Your task to perform on an android device: Go to calendar. Show me events next week Image 0: 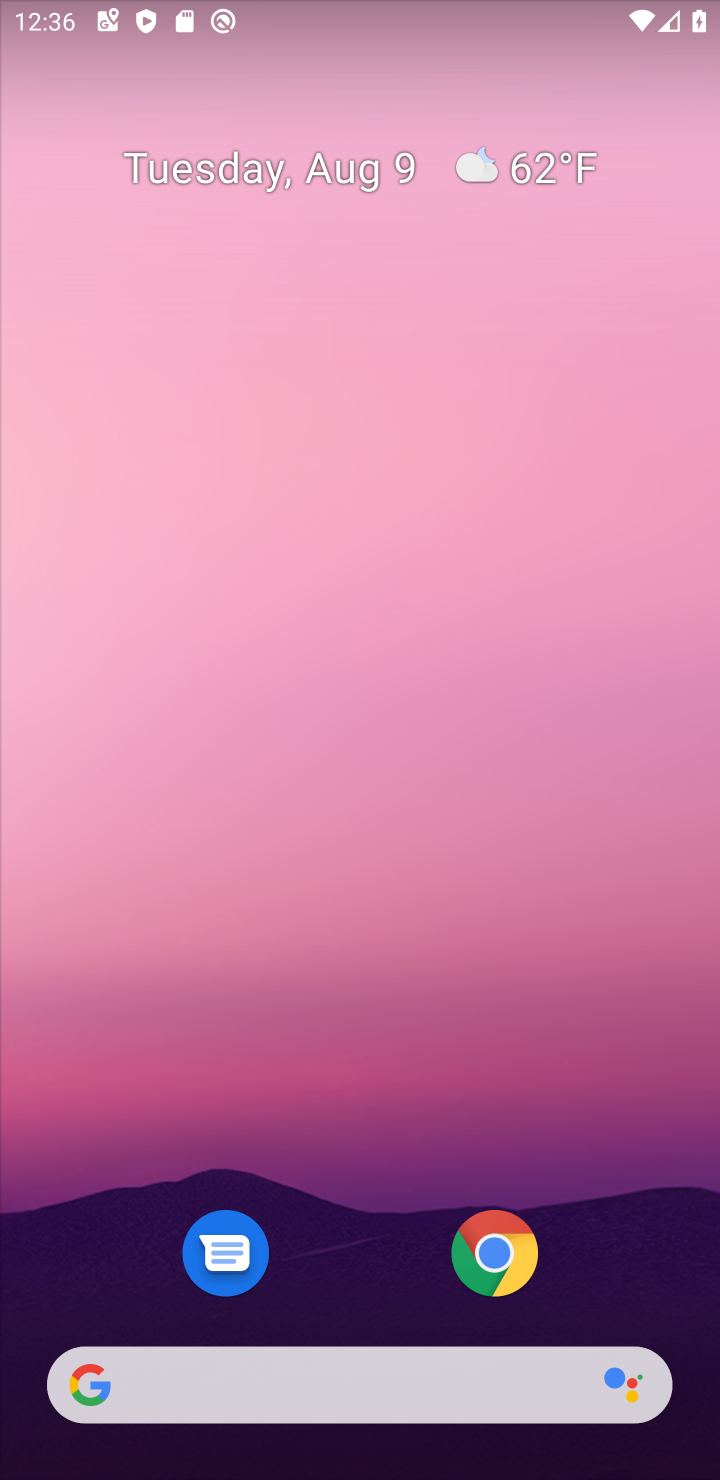
Step 0: drag from (661, 1191) to (473, 22)
Your task to perform on an android device: Go to calendar. Show me events next week Image 1: 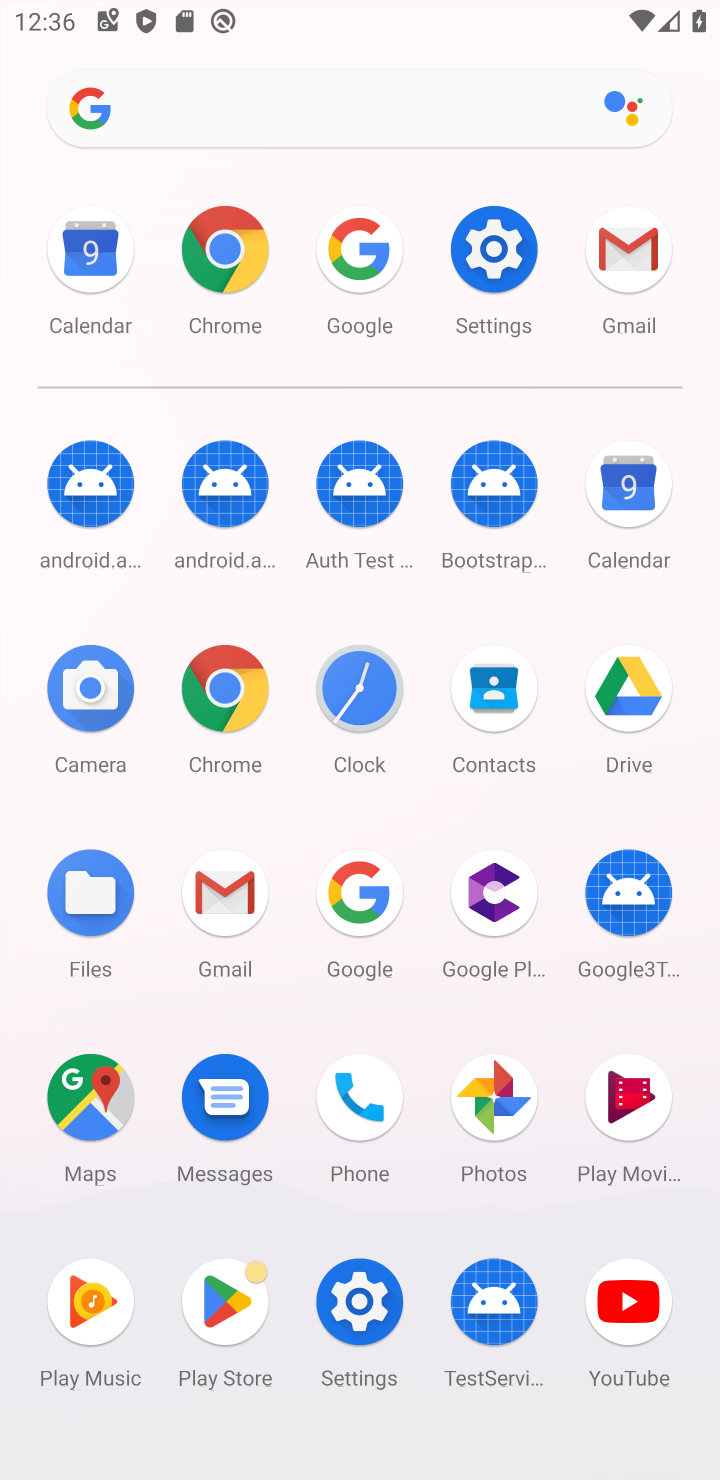
Step 1: click (649, 490)
Your task to perform on an android device: Go to calendar. Show me events next week Image 2: 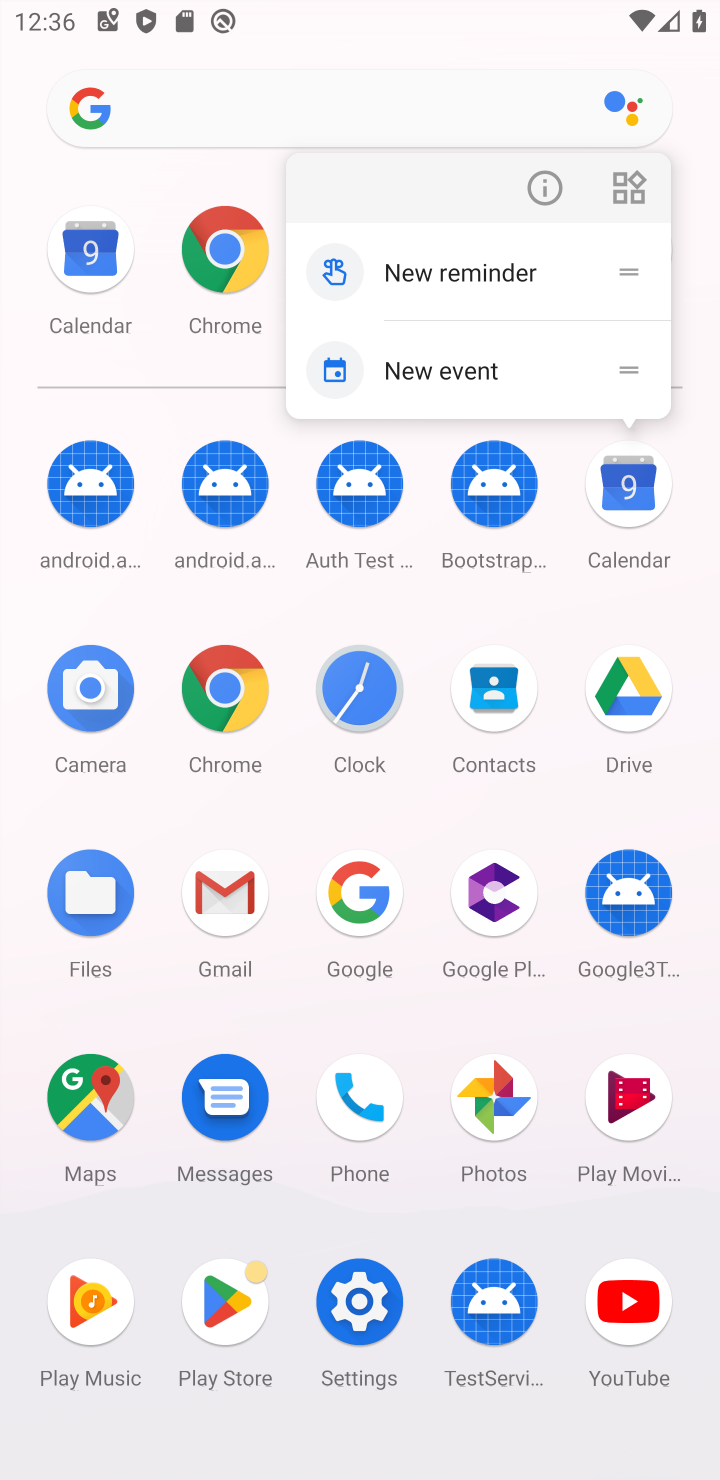
Step 2: click (649, 490)
Your task to perform on an android device: Go to calendar. Show me events next week Image 3: 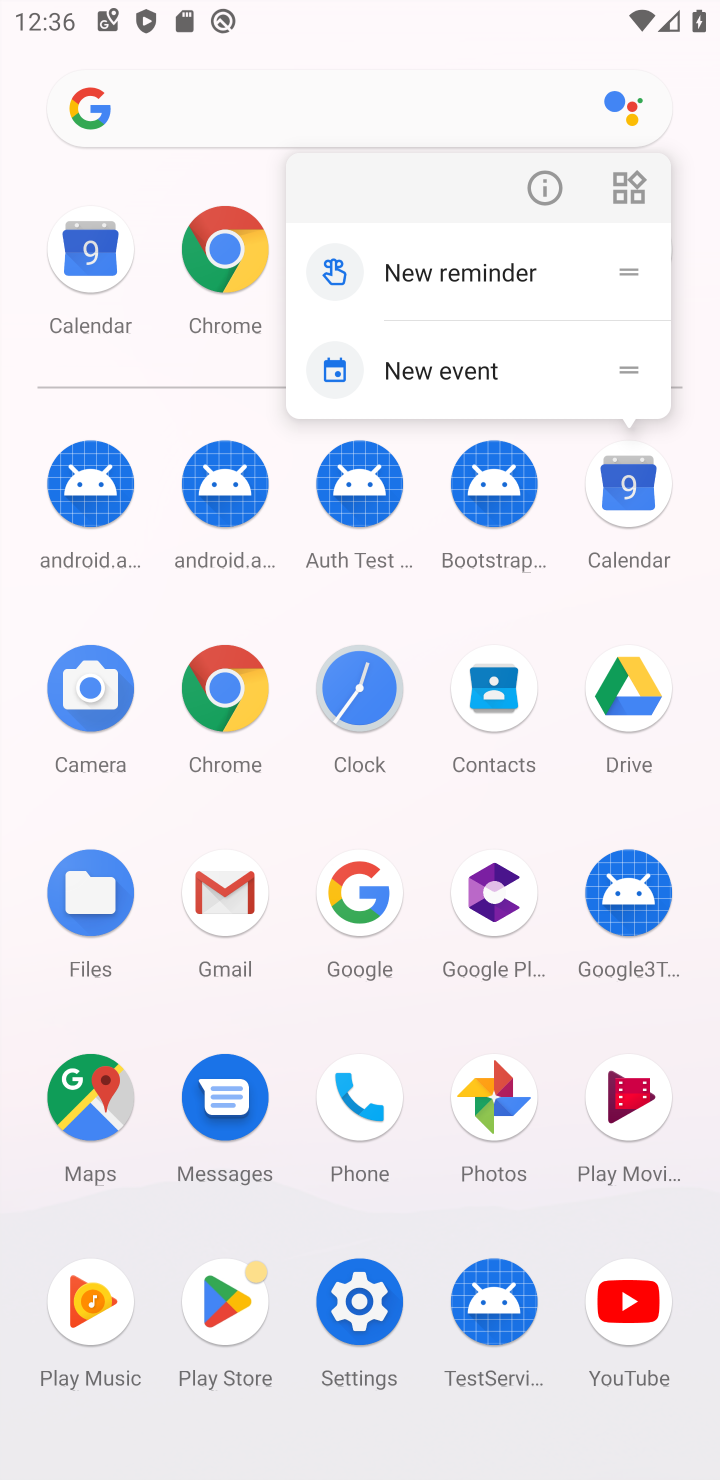
Step 3: click (635, 493)
Your task to perform on an android device: Go to calendar. Show me events next week Image 4: 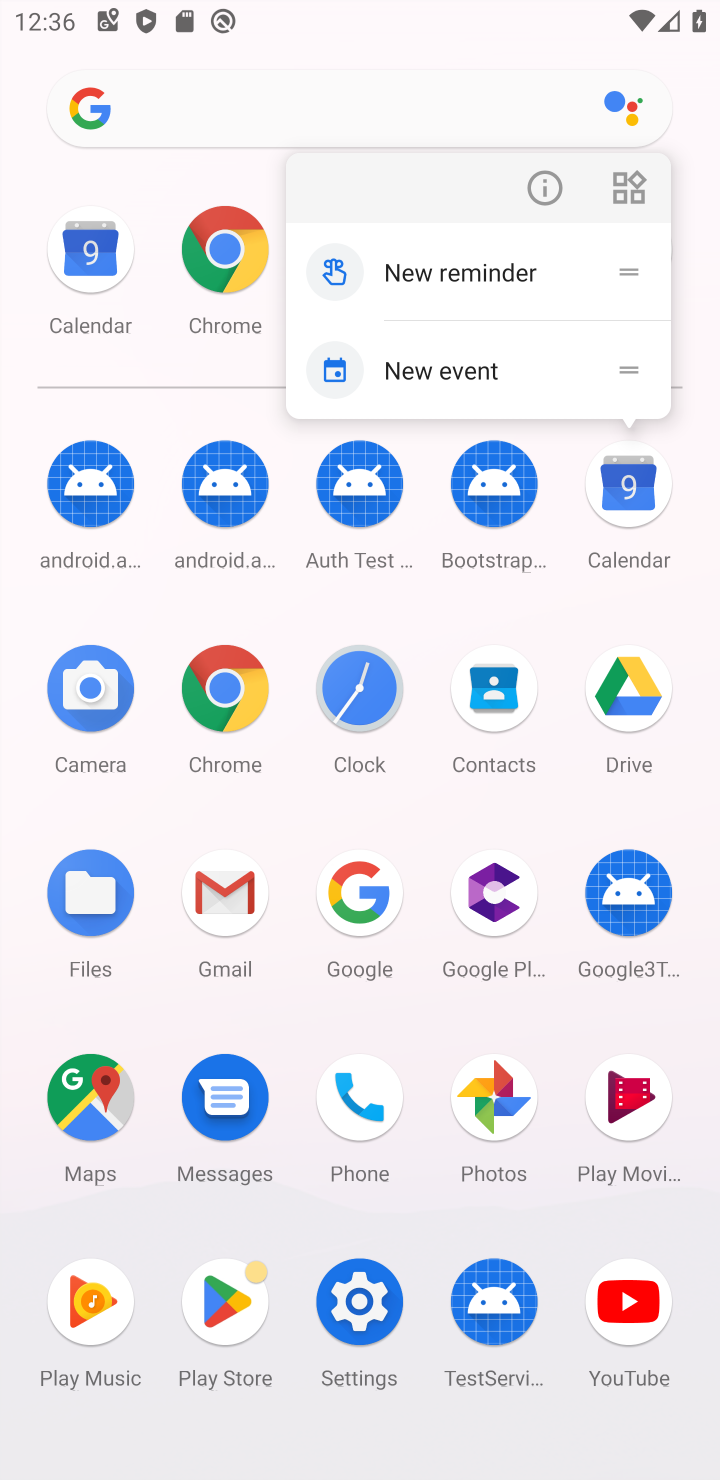
Step 4: click (635, 493)
Your task to perform on an android device: Go to calendar. Show me events next week Image 5: 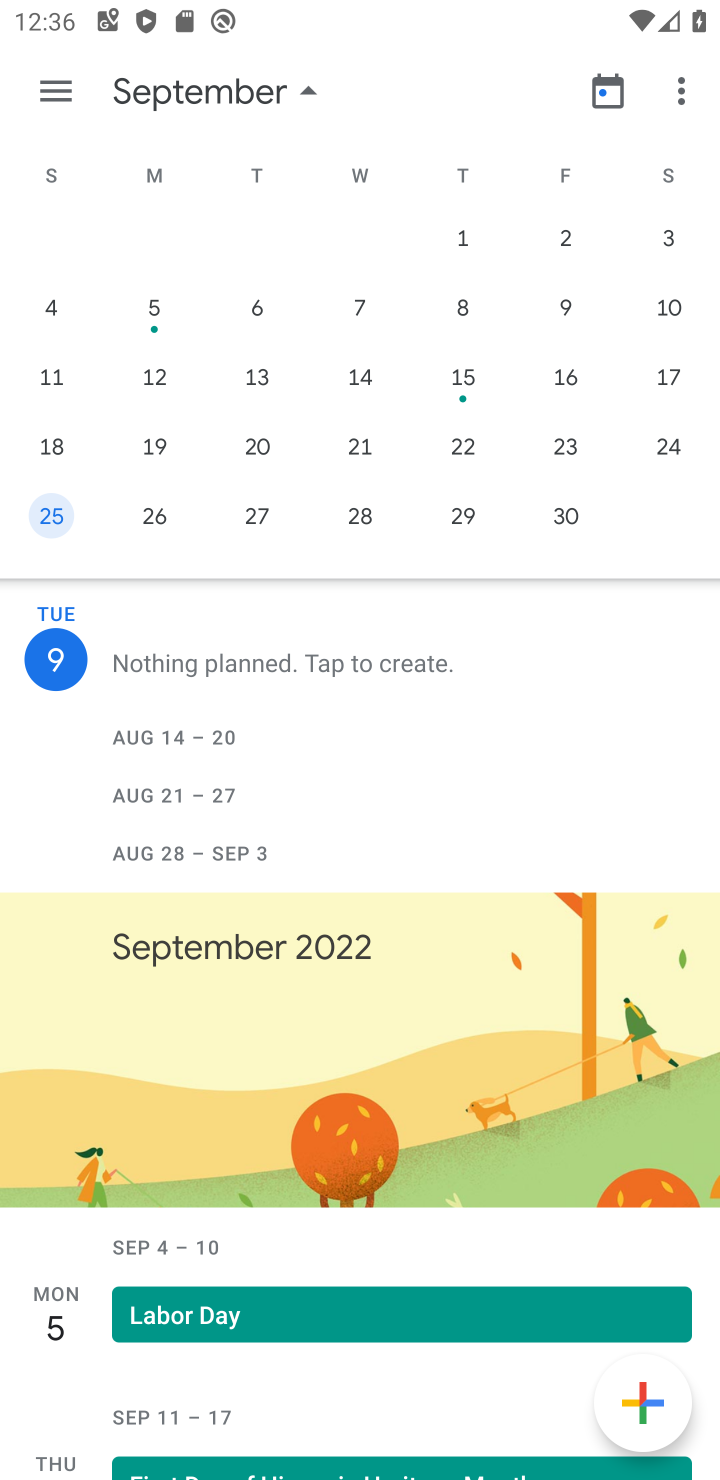
Step 5: task complete